Your task to perform on an android device: change keyboard looks Image 0: 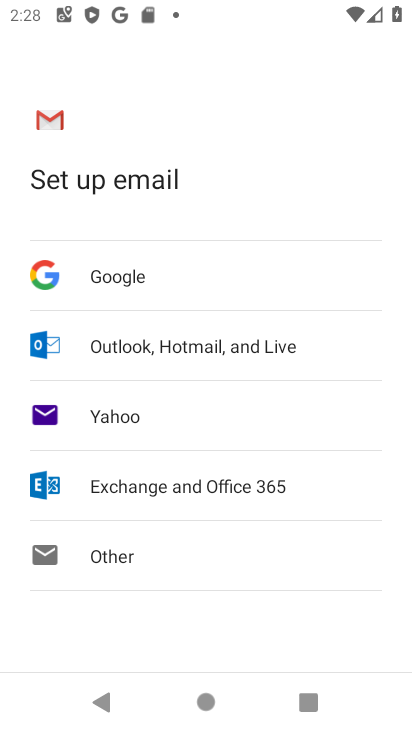
Step 0: press home button
Your task to perform on an android device: change keyboard looks Image 1: 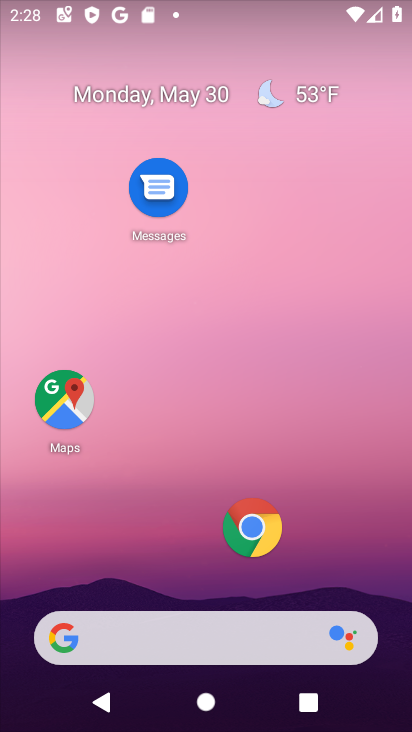
Step 1: drag from (177, 557) to (284, 88)
Your task to perform on an android device: change keyboard looks Image 2: 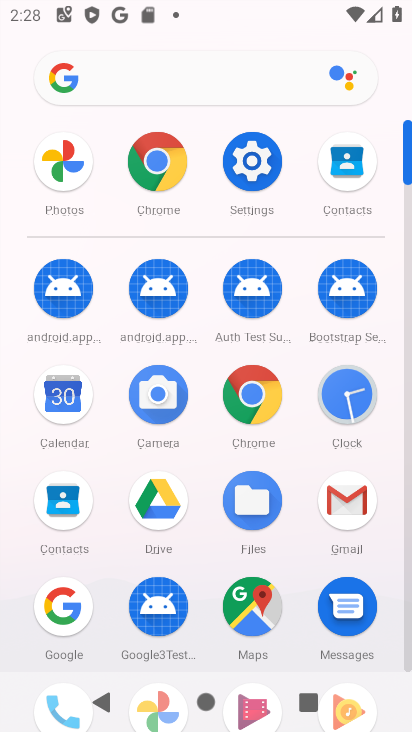
Step 2: click (261, 174)
Your task to perform on an android device: change keyboard looks Image 3: 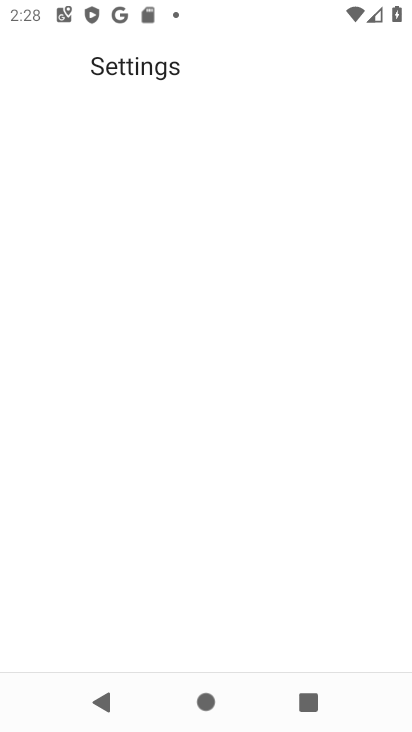
Step 3: task complete